Your task to perform on an android device: toggle notifications settings in the gmail app Image 0: 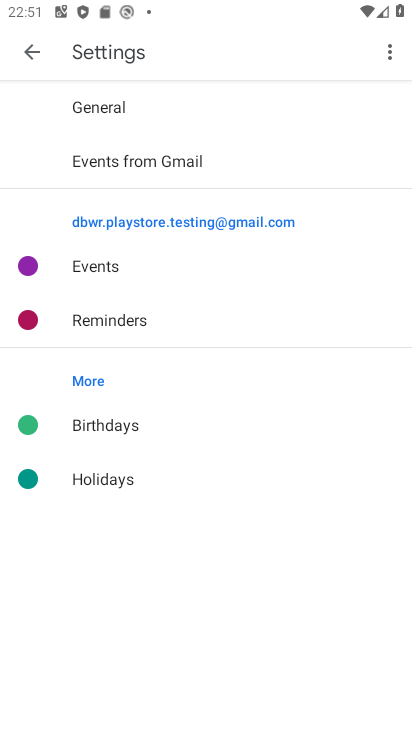
Step 0: press home button
Your task to perform on an android device: toggle notifications settings in the gmail app Image 1: 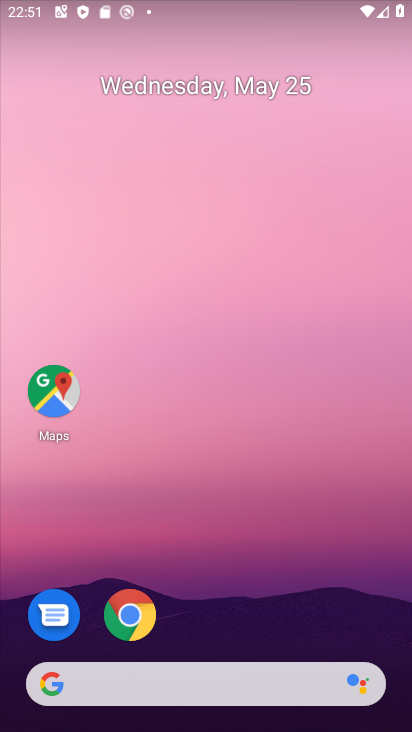
Step 1: drag from (309, 433) to (365, 189)
Your task to perform on an android device: toggle notifications settings in the gmail app Image 2: 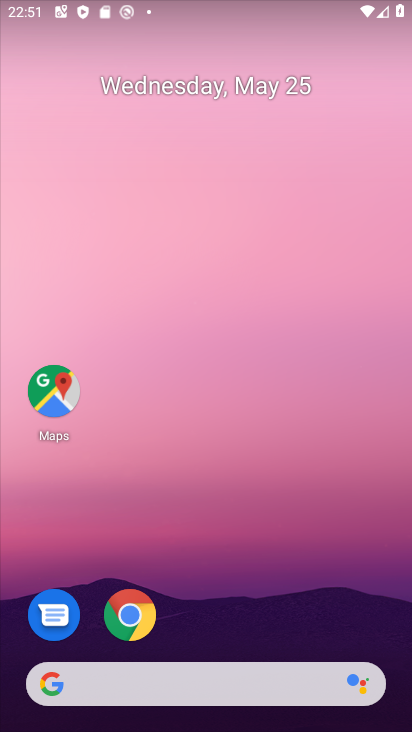
Step 2: drag from (279, 559) to (279, 144)
Your task to perform on an android device: toggle notifications settings in the gmail app Image 3: 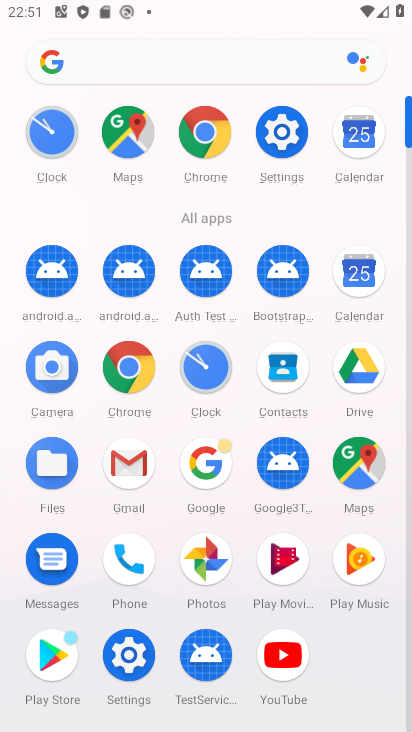
Step 3: click (134, 464)
Your task to perform on an android device: toggle notifications settings in the gmail app Image 4: 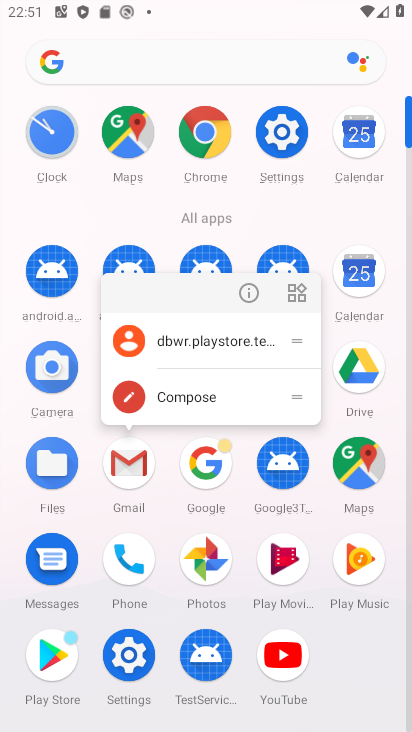
Step 4: click (130, 474)
Your task to perform on an android device: toggle notifications settings in the gmail app Image 5: 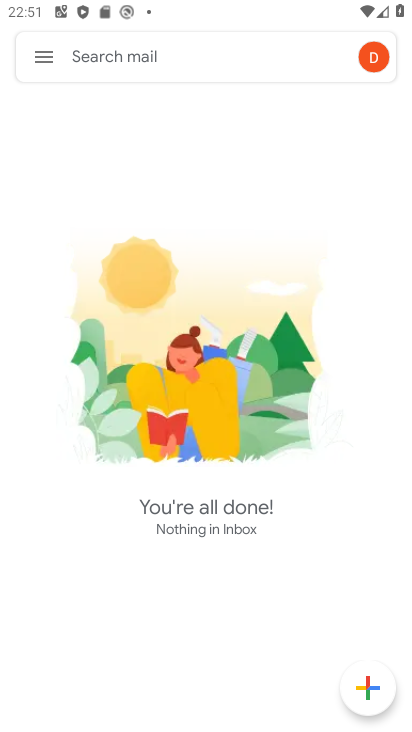
Step 5: click (51, 58)
Your task to perform on an android device: toggle notifications settings in the gmail app Image 6: 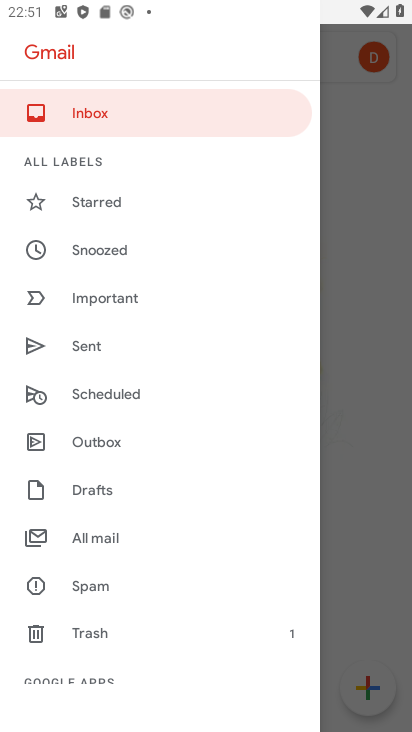
Step 6: drag from (173, 615) to (205, 189)
Your task to perform on an android device: toggle notifications settings in the gmail app Image 7: 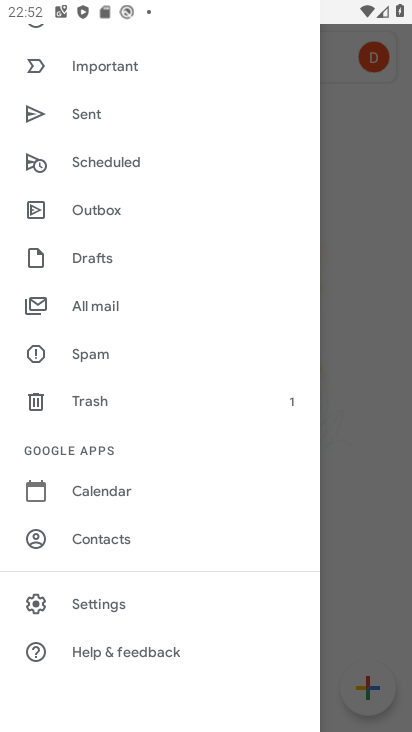
Step 7: click (92, 599)
Your task to perform on an android device: toggle notifications settings in the gmail app Image 8: 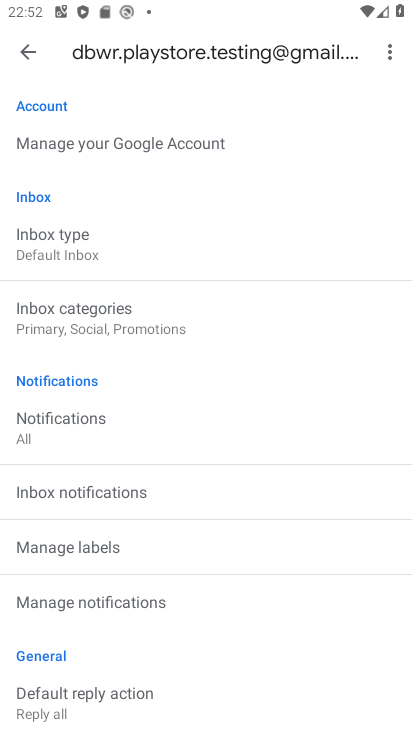
Step 8: drag from (290, 632) to (341, 151)
Your task to perform on an android device: toggle notifications settings in the gmail app Image 9: 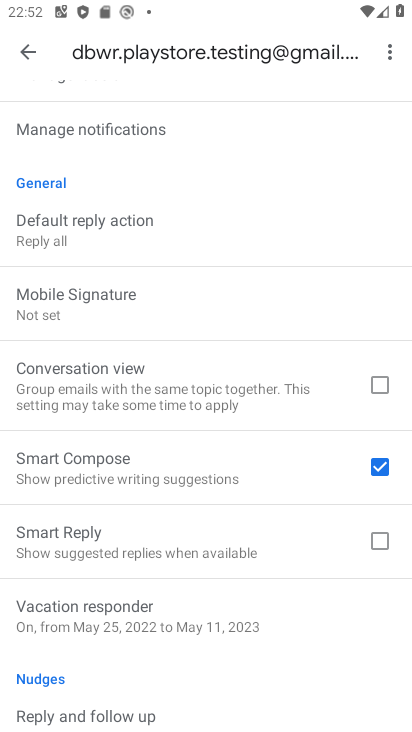
Step 9: drag from (186, 668) to (211, 10)
Your task to perform on an android device: toggle notifications settings in the gmail app Image 10: 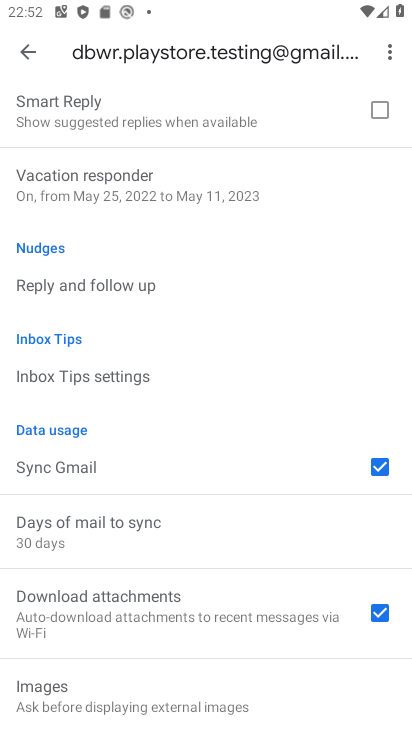
Step 10: drag from (142, 587) to (167, 224)
Your task to perform on an android device: toggle notifications settings in the gmail app Image 11: 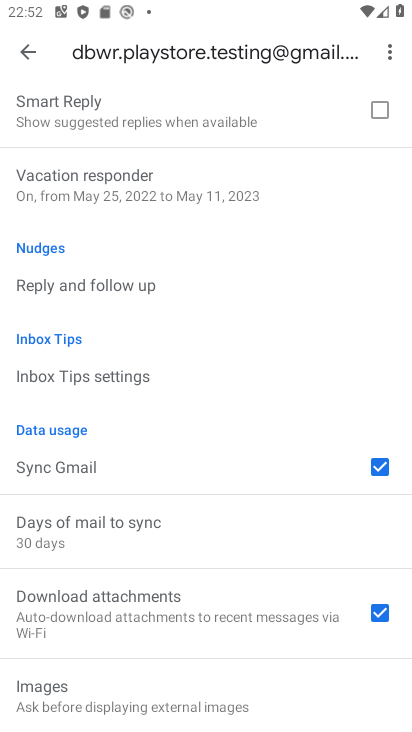
Step 11: drag from (193, 143) to (125, 723)
Your task to perform on an android device: toggle notifications settings in the gmail app Image 12: 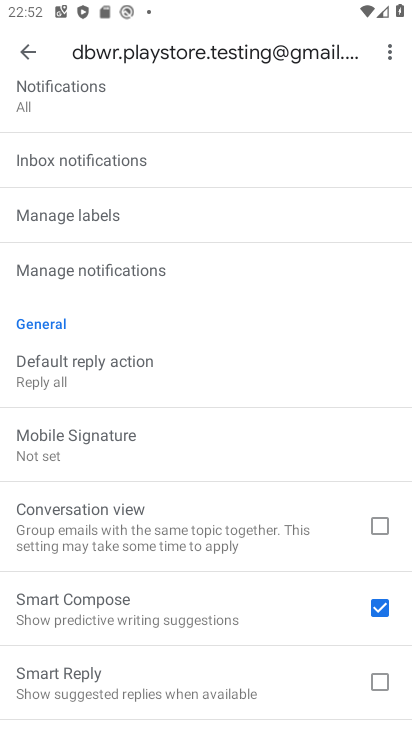
Step 12: drag from (200, 320) to (130, 713)
Your task to perform on an android device: toggle notifications settings in the gmail app Image 13: 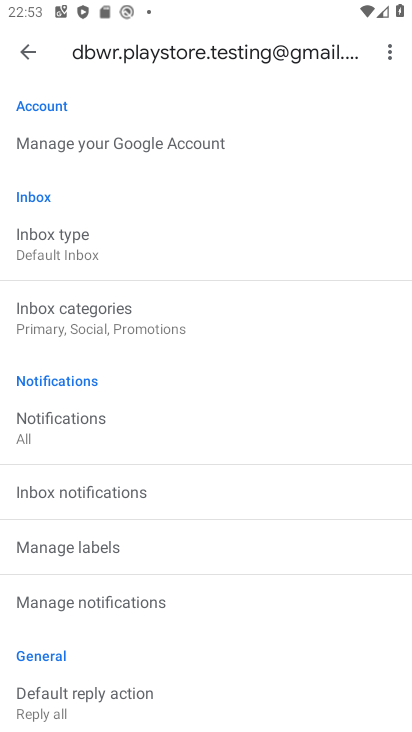
Step 13: drag from (233, 660) to (179, 383)
Your task to perform on an android device: toggle notifications settings in the gmail app Image 14: 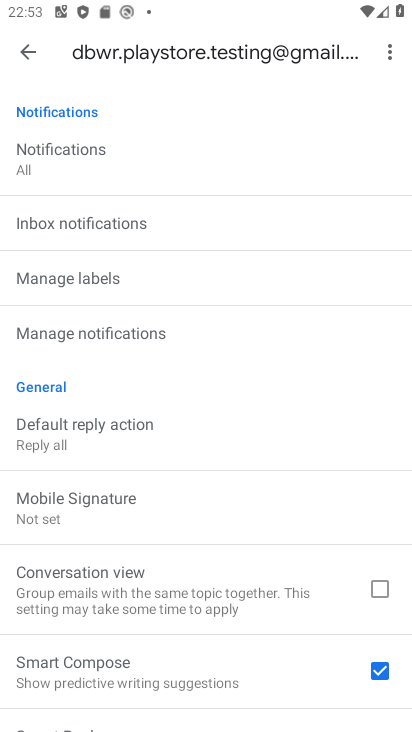
Step 14: click (142, 166)
Your task to perform on an android device: toggle notifications settings in the gmail app Image 15: 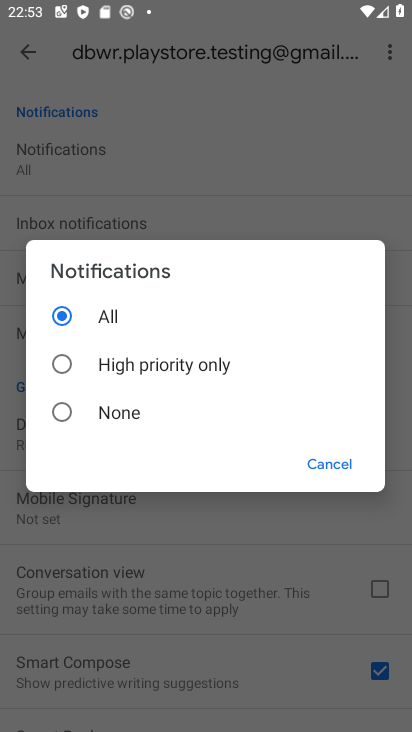
Step 15: click (68, 375)
Your task to perform on an android device: toggle notifications settings in the gmail app Image 16: 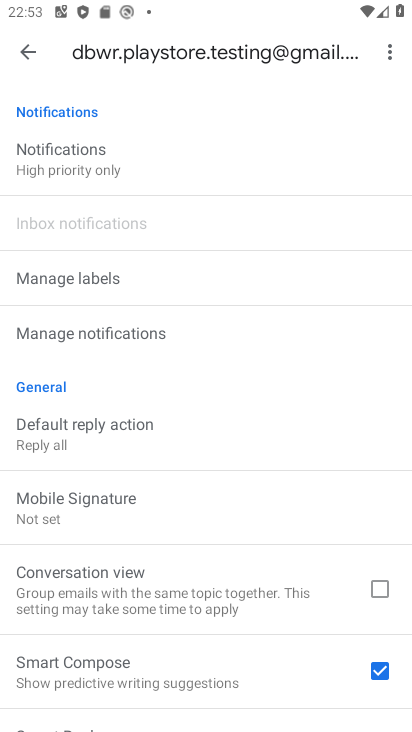
Step 16: task complete